Your task to perform on an android device: stop showing notifications on the lock screen Image 0: 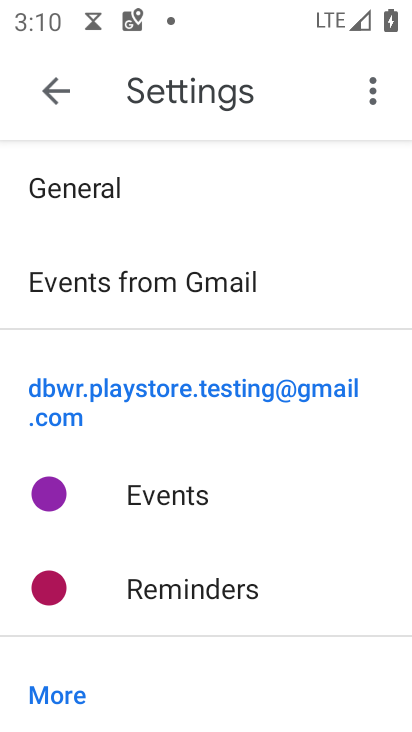
Step 0: press home button
Your task to perform on an android device: stop showing notifications on the lock screen Image 1: 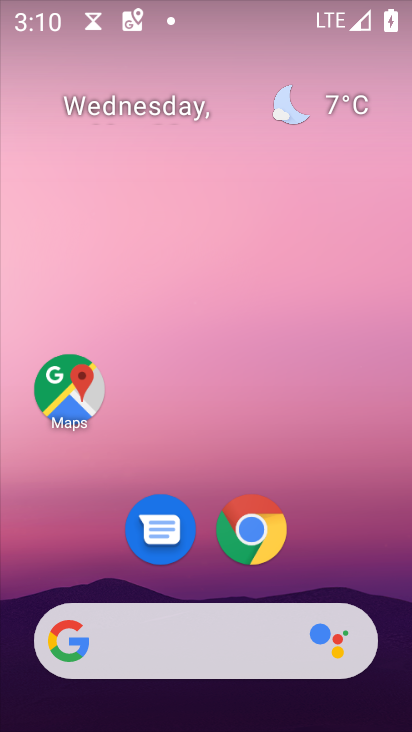
Step 1: drag from (357, 521) to (369, 113)
Your task to perform on an android device: stop showing notifications on the lock screen Image 2: 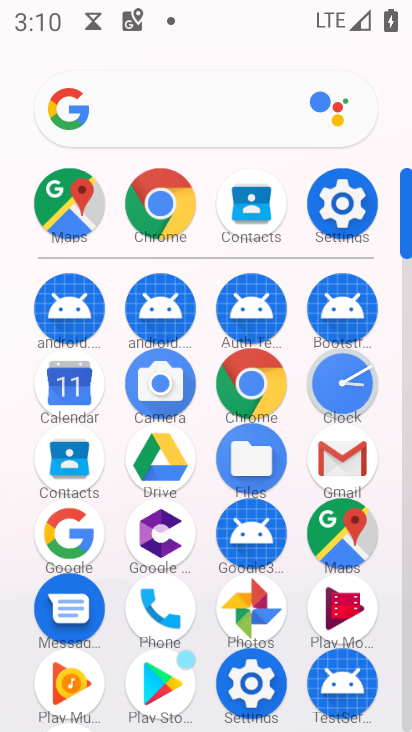
Step 2: click (337, 197)
Your task to perform on an android device: stop showing notifications on the lock screen Image 3: 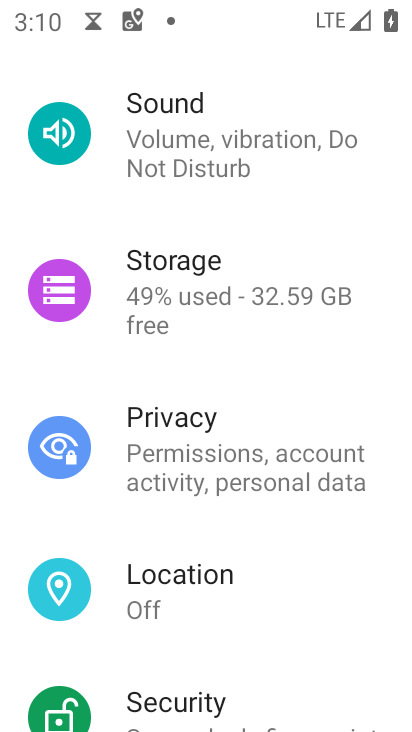
Step 3: drag from (282, 198) to (275, 601)
Your task to perform on an android device: stop showing notifications on the lock screen Image 4: 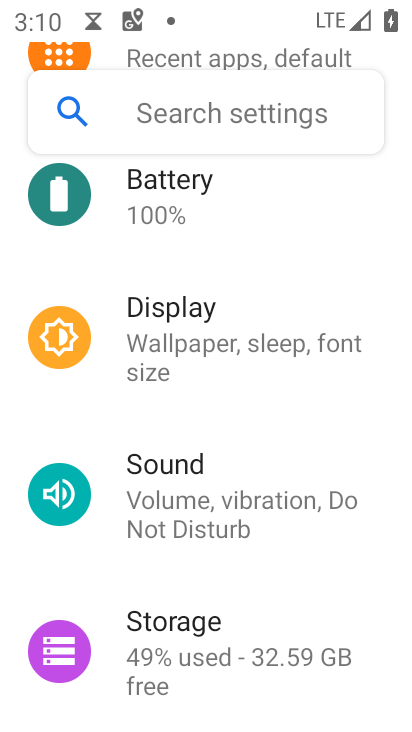
Step 4: drag from (227, 316) to (256, 690)
Your task to perform on an android device: stop showing notifications on the lock screen Image 5: 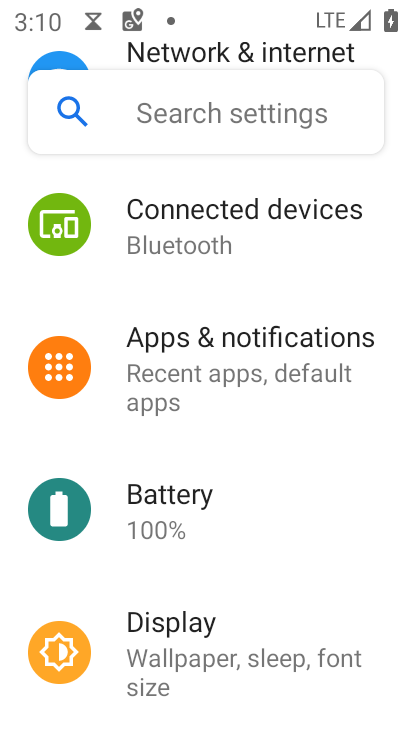
Step 5: drag from (217, 393) to (279, 679)
Your task to perform on an android device: stop showing notifications on the lock screen Image 6: 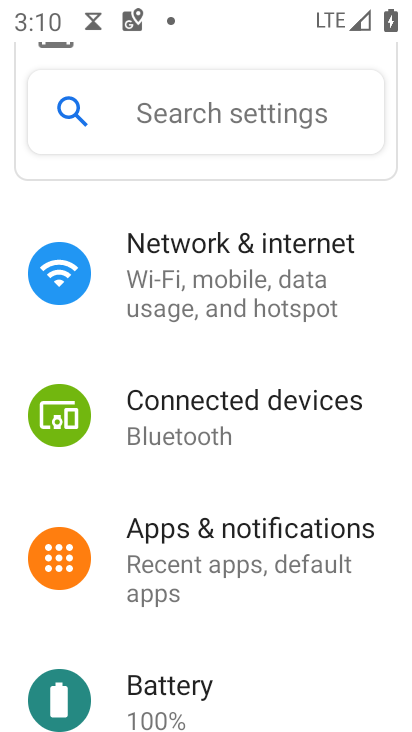
Step 6: click (212, 536)
Your task to perform on an android device: stop showing notifications on the lock screen Image 7: 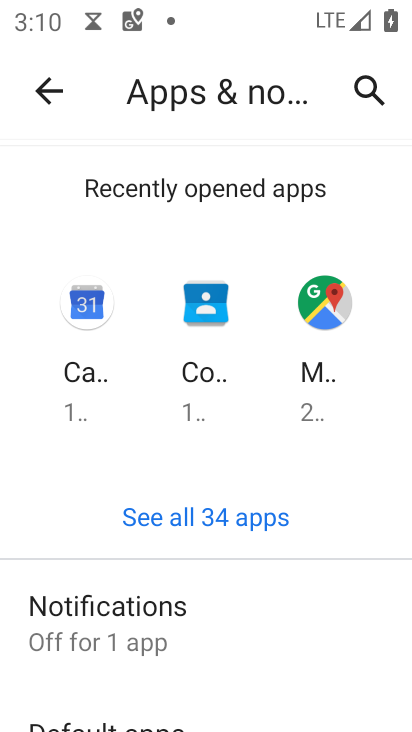
Step 7: drag from (216, 618) to (243, 263)
Your task to perform on an android device: stop showing notifications on the lock screen Image 8: 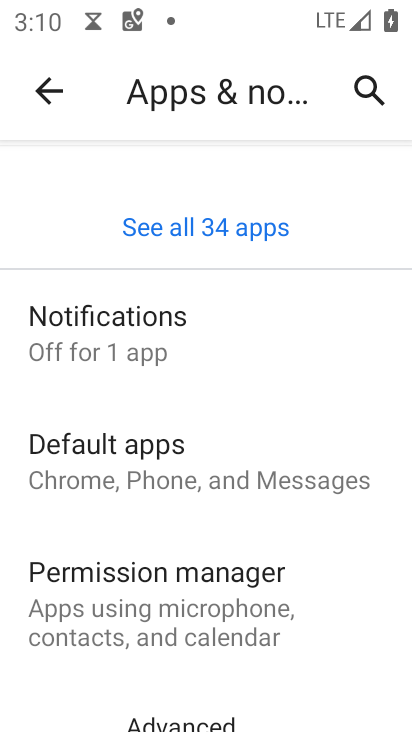
Step 8: click (156, 347)
Your task to perform on an android device: stop showing notifications on the lock screen Image 9: 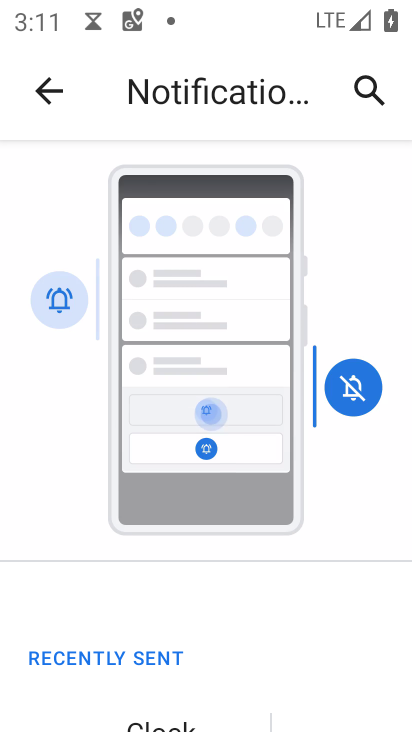
Step 9: drag from (194, 682) to (195, 295)
Your task to perform on an android device: stop showing notifications on the lock screen Image 10: 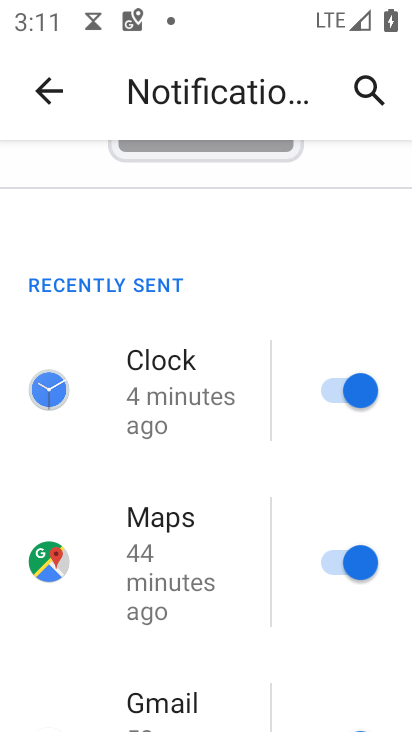
Step 10: drag from (189, 649) to (207, 339)
Your task to perform on an android device: stop showing notifications on the lock screen Image 11: 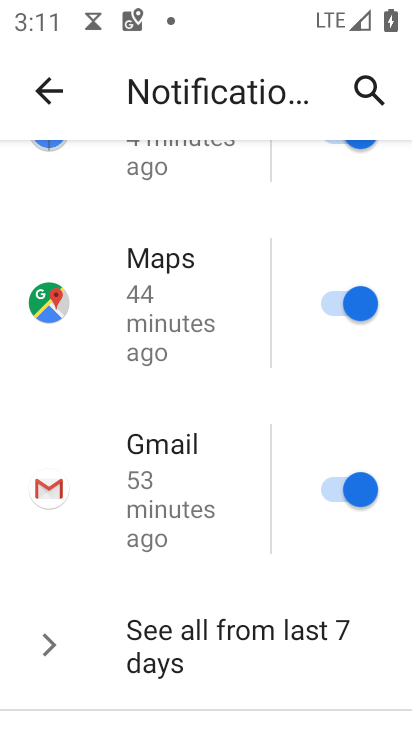
Step 11: drag from (191, 640) to (217, 280)
Your task to perform on an android device: stop showing notifications on the lock screen Image 12: 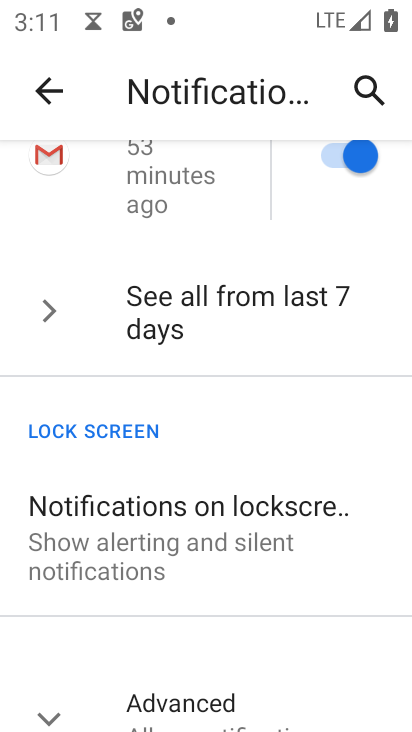
Step 12: click (179, 525)
Your task to perform on an android device: stop showing notifications on the lock screen Image 13: 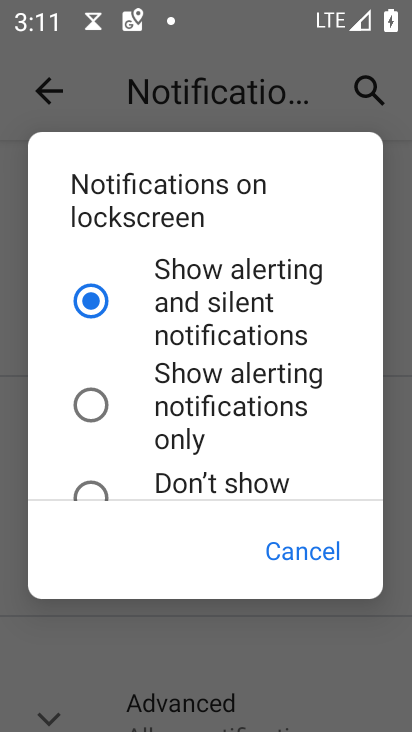
Step 13: drag from (201, 374) to (185, 248)
Your task to perform on an android device: stop showing notifications on the lock screen Image 14: 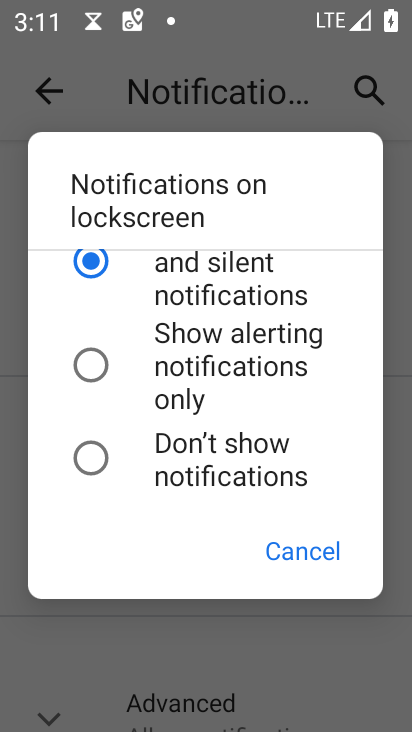
Step 14: click (73, 452)
Your task to perform on an android device: stop showing notifications on the lock screen Image 15: 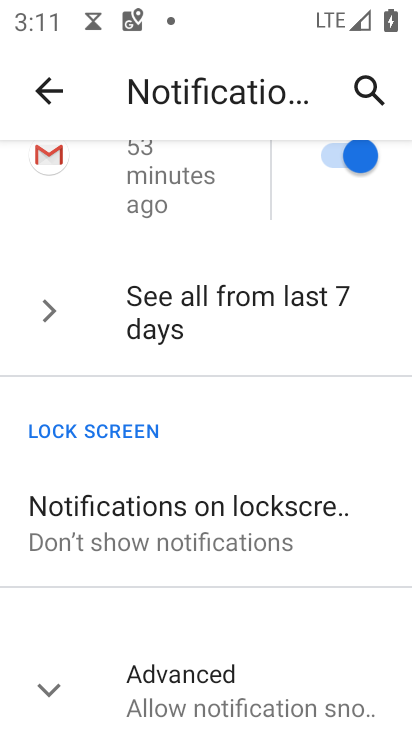
Step 15: task complete